Your task to perform on an android device: check data usage Image 0: 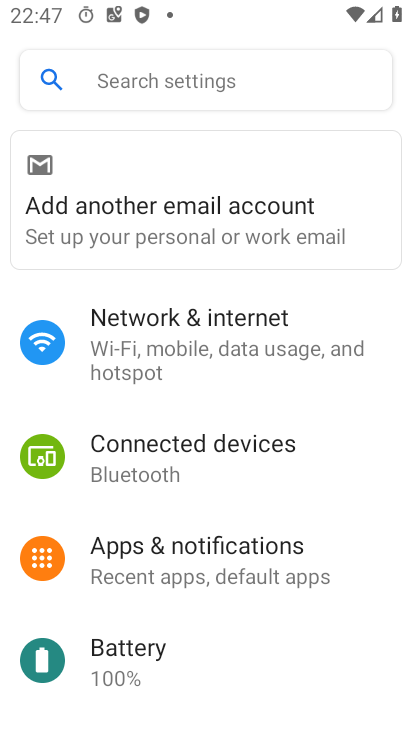
Step 0: click (180, 344)
Your task to perform on an android device: check data usage Image 1: 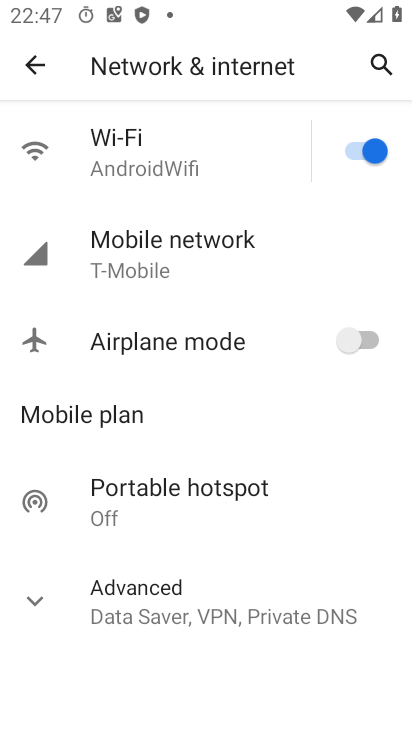
Step 1: click (156, 263)
Your task to perform on an android device: check data usage Image 2: 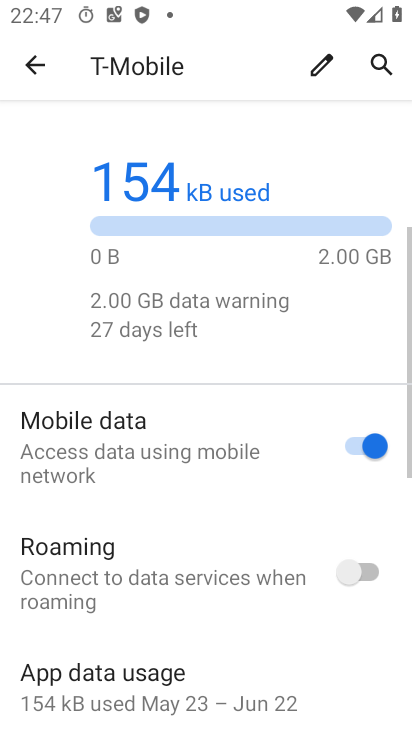
Step 2: drag from (171, 510) to (190, 162)
Your task to perform on an android device: check data usage Image 3: 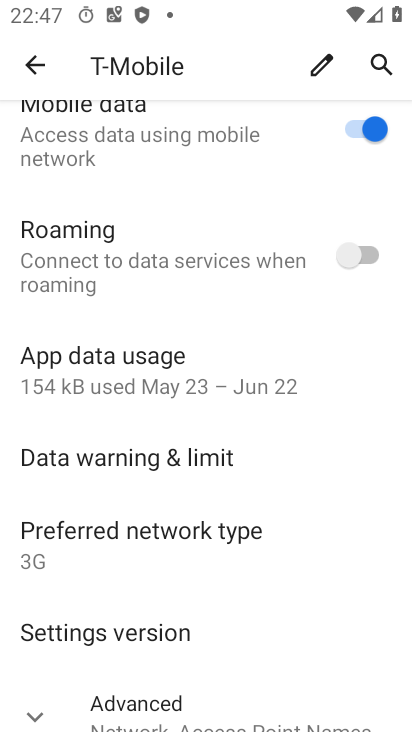
Step 3: click (139, 386)
Your task to perform on an android device: check data usage Image 4: 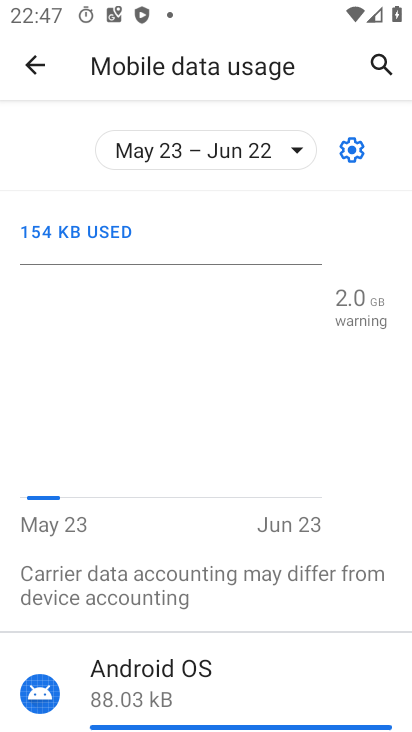
Step 4: task complete